Your task to perform on an android device: create a new album in the google photos Image 0: 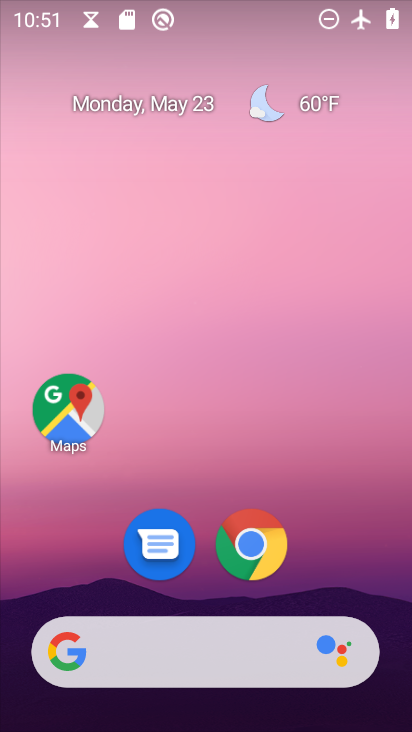
Step 0: drag from (312, 518) to (216, 321)
Your task to perform on an android device: create a new album in the google photos Image 1: 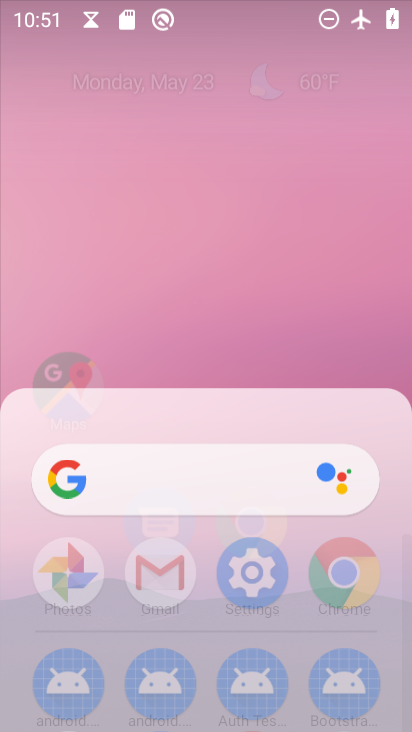
Step 1: drag from (141, 241) to (135, 204)
Your task to perform on an android device: create a new album in the google photos Image 2: 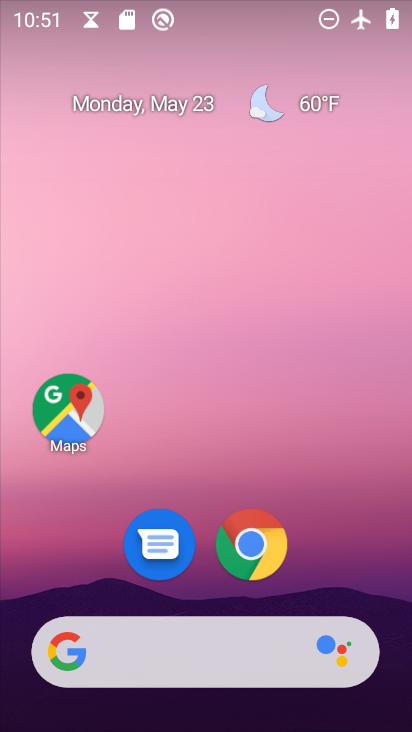
Step 2: drag from (307, 428) to (82, 65)
Your task to perform on an android device: create a new album in the google photos Image 3: 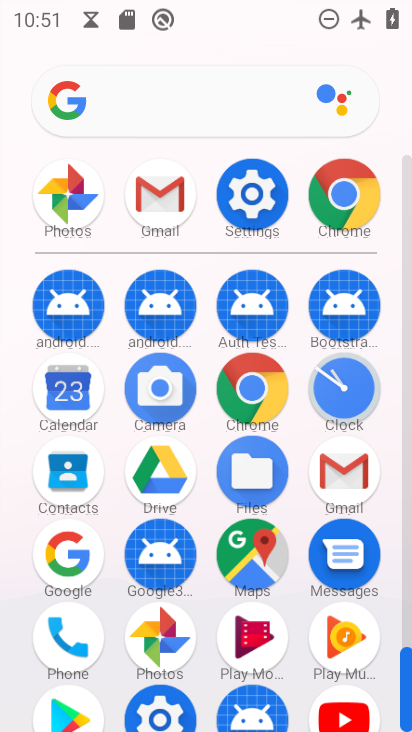
Step 3: click (85, 198)
Your task to perform on an android device: create a new album in the google photos Image 4: 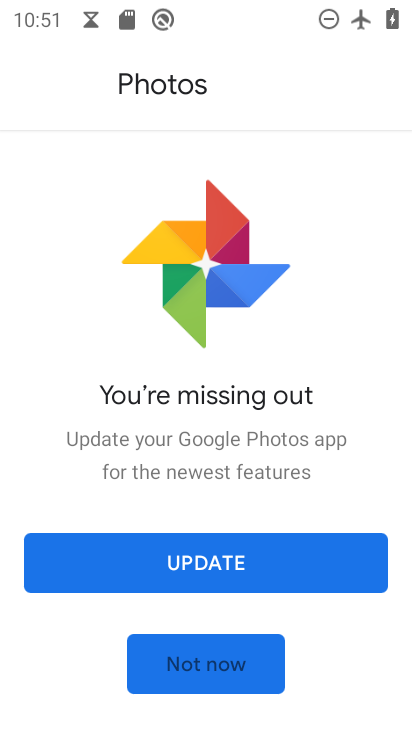
Step 4: click (192, 672)
Your task to perform on an android device: create a new album in the google photos Image 5: 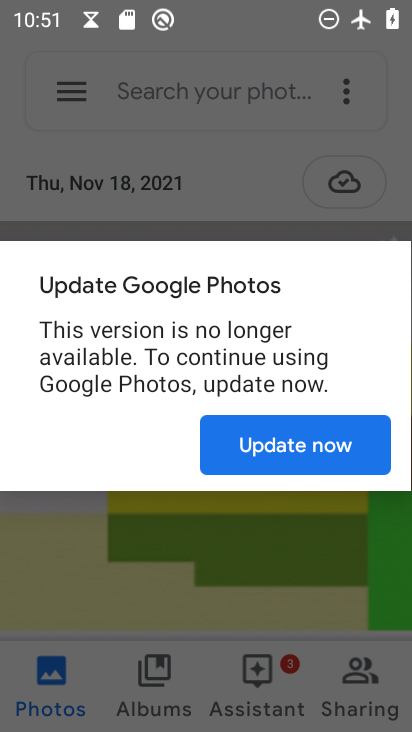
Step 5: click (305, 449)
Your task to perform on an android device: create a new album in the google photos Image 6: 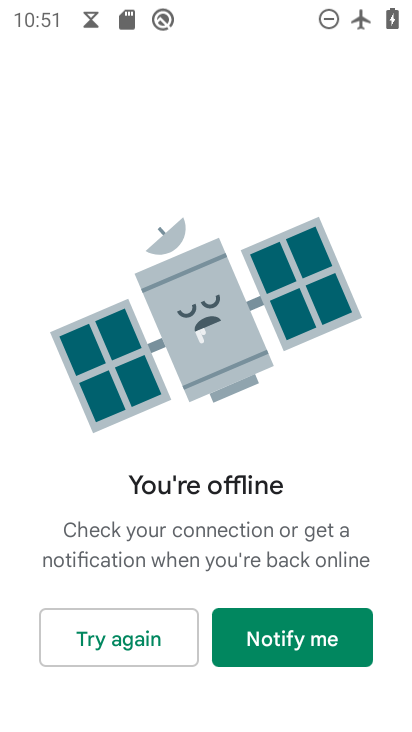
Step 6: click (161, 629)
Your task to perform on an android device: create a new album in the google photos Image 7: 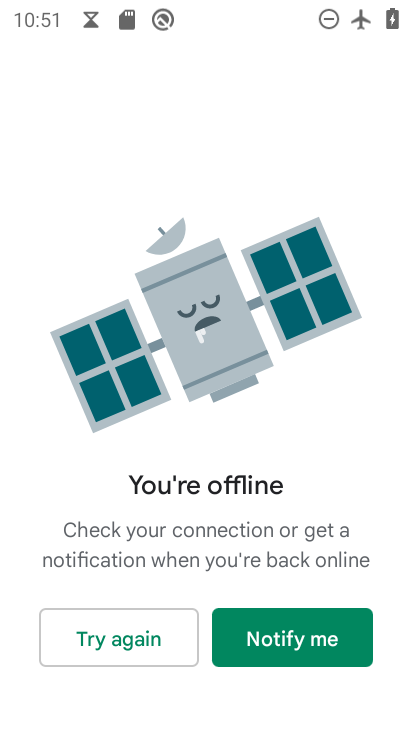
Step 7: press back button
Your task to perform on an android device: create a new album in the google photos Image 8: 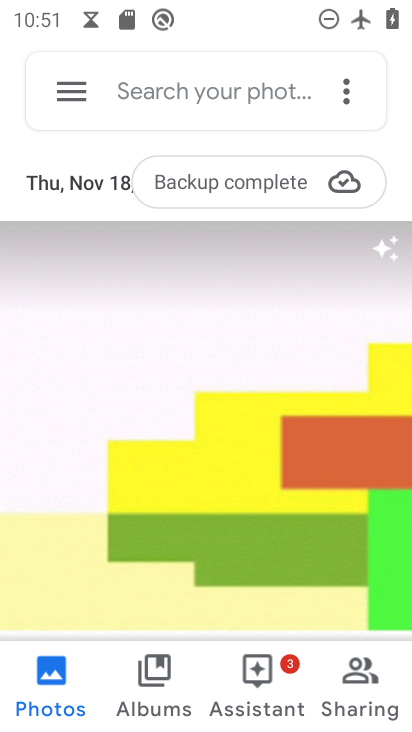
Step 8: click (165, 686)
Your task to perform on an android device: create a new album in the google photos Image 9: 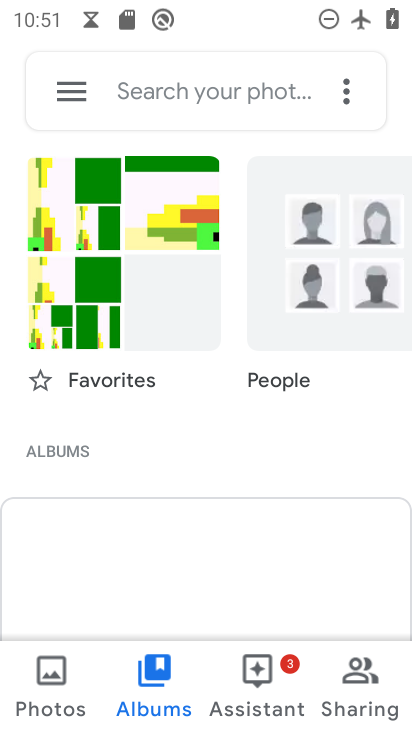
Step 9: drag from (192, 581) to (162, 278)
Your task to perform on an android device: create a new album in the google photos Image 10: 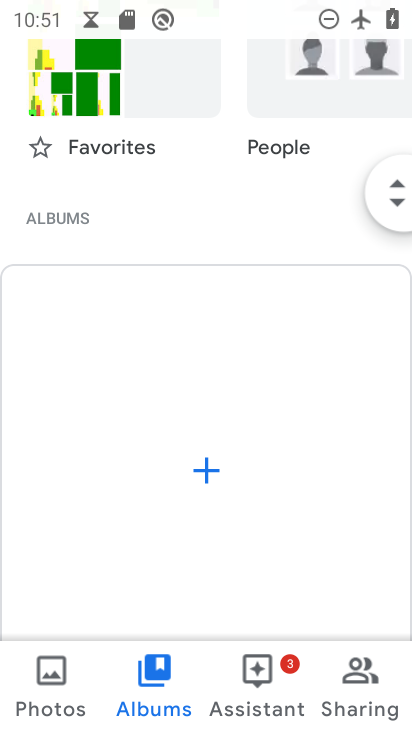
Step 10: click (203, 461)
Your task to perform on an android device: create a new album in the google photos Image 11: 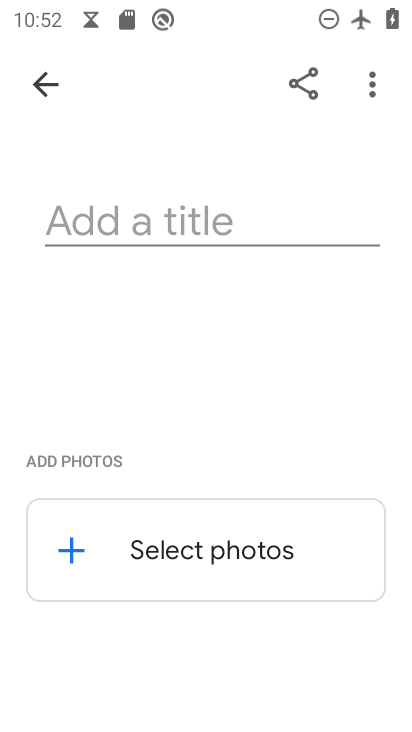
Step 11: click (150, 226)
Your task to perform on an android device: create a new album in the google photos Image 12: 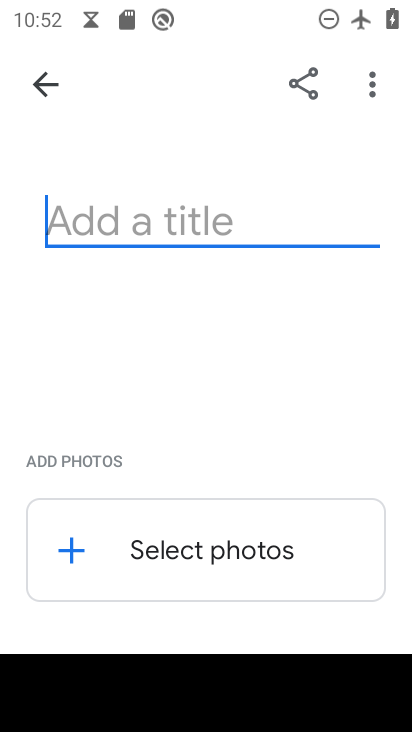
Step 12: type "rossa"
Your task to perform on an android device: create a new album in the google photos Image 13: 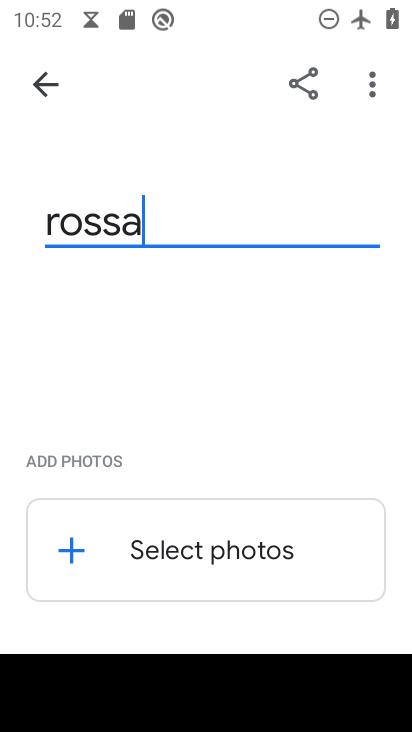
Step 13: click (183, 554)
Your task to perform on an android device: create a new album in the google photos Image 14: 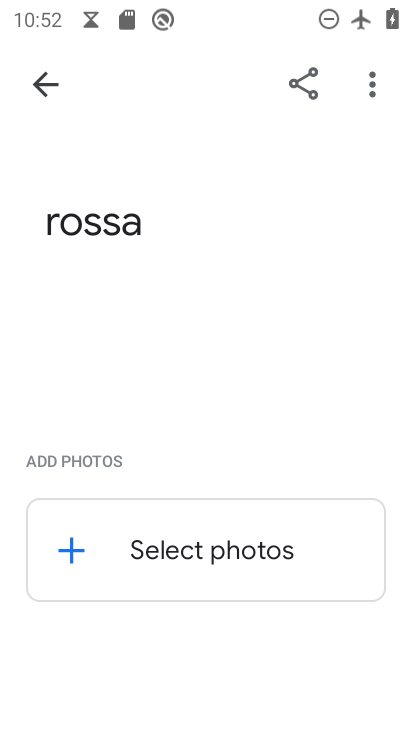
Step 14: click (77, 550)
Your task to perform on an android device: create a new album in the google photos Image 15: 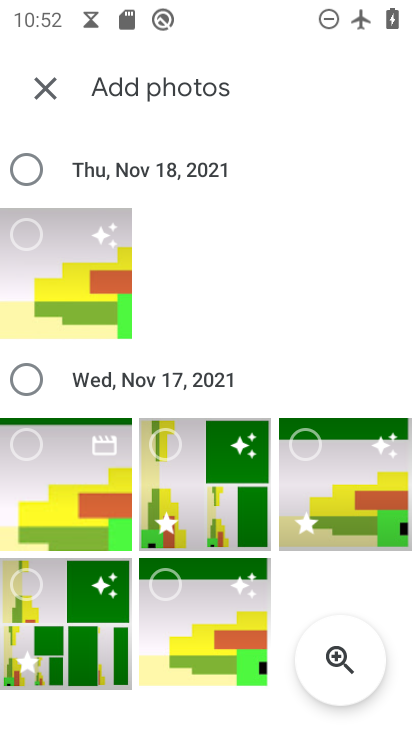
Step 15: click (17, 385)
Your task to perform on an android device: create a new album in the google photos Image 16: 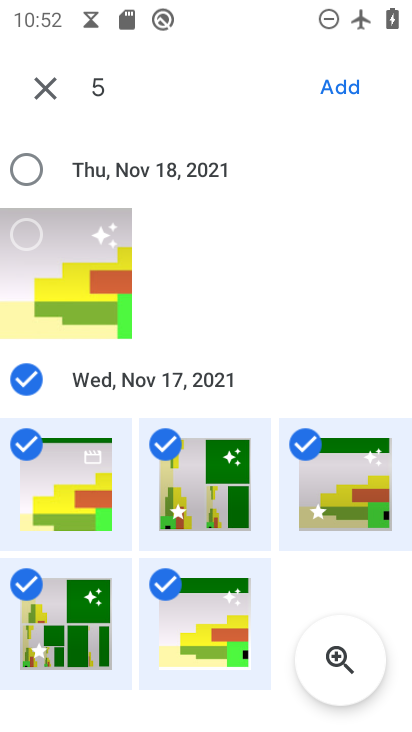
Step 16: click (332, 81)
Your task to perform on an android device: create a new album in the google photos Image 17: 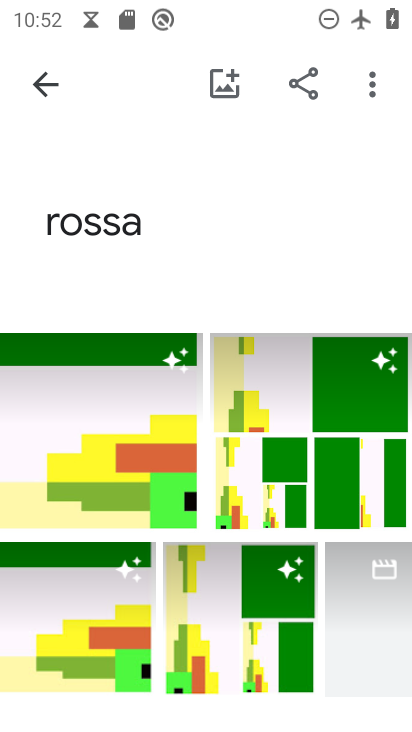
Step 17: task complete